Your task to perform on an android device: Open ESPN.com Image 0: 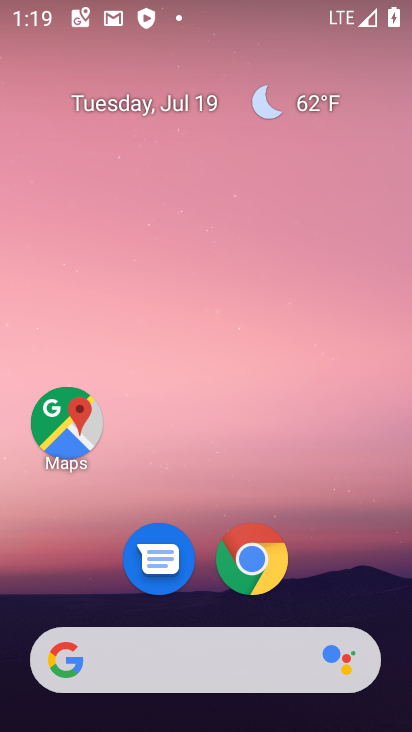
Step 0: drag from (174, 683) to (238, 154)
Your task to perform on an android device: Open ESPN.com Image 1: 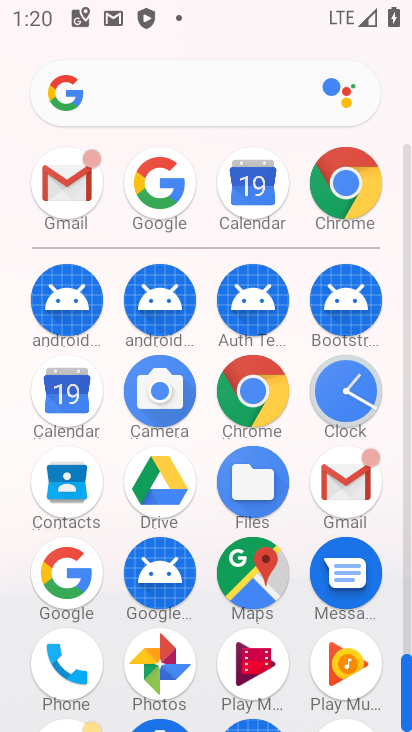
Step 1: click (343, 180)
Your task to perform on an android device: Open ESPN.com Image 2: 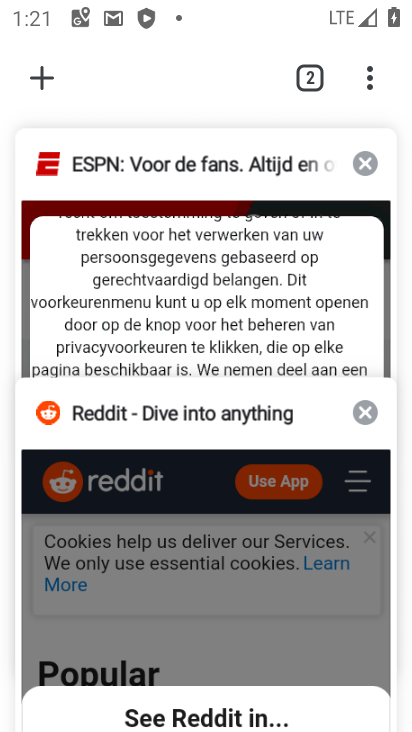
Step 2: click (178, 251)
Your task to perform on an android device: Open ESPN.com Image 3: 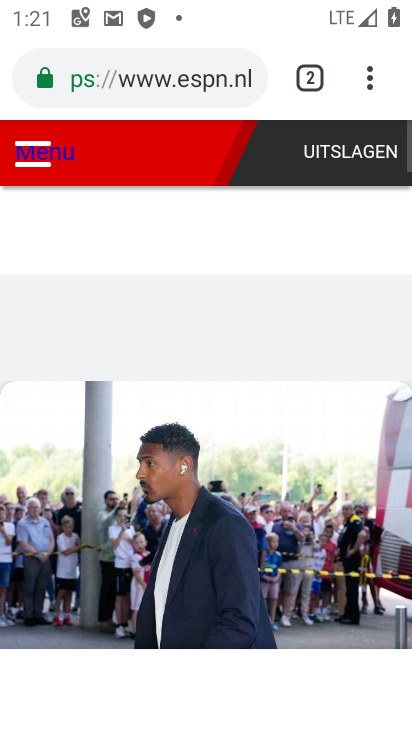
Step 3: task complete